Your task to perform on an android device: open device folders in google photos Image 0: 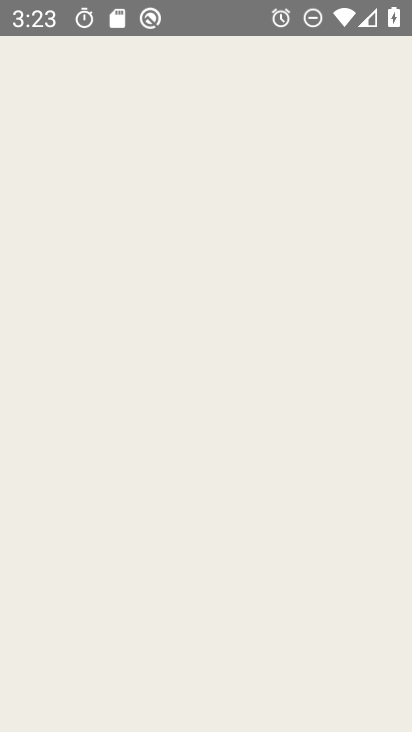
Step 0: click (208, 611)
Your task to perform on an android device: open device folders in google photos Image 1: 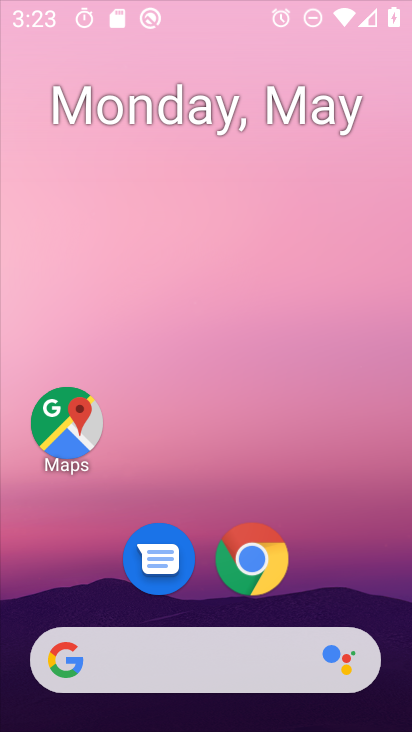
Step 1: drag from (199, 601) to (246, 71)
Your task to perform on an android device: open device folders in google photos Image 2: 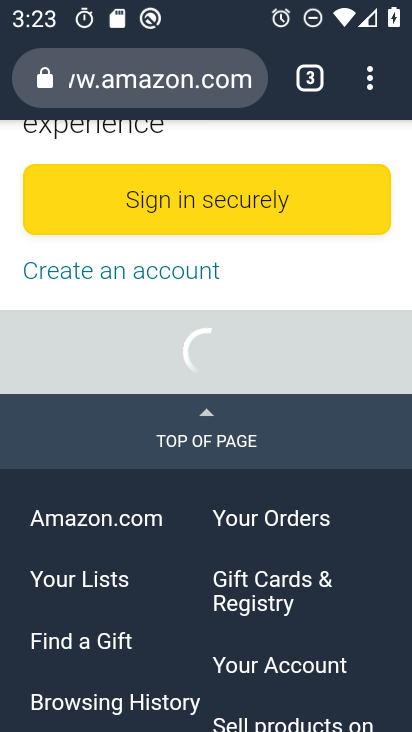
Step 2: drag from (209, 620) to (250, 197)
Your task to perform on an android device: open device folders in google photos Image 3: 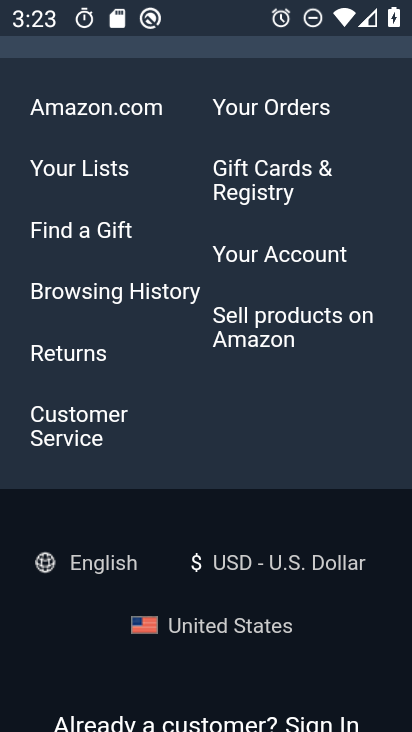
Step 3: drag from (198, 127) to (217, 592)
Your task to perform on an android device: open device folders in google photos Image 4: 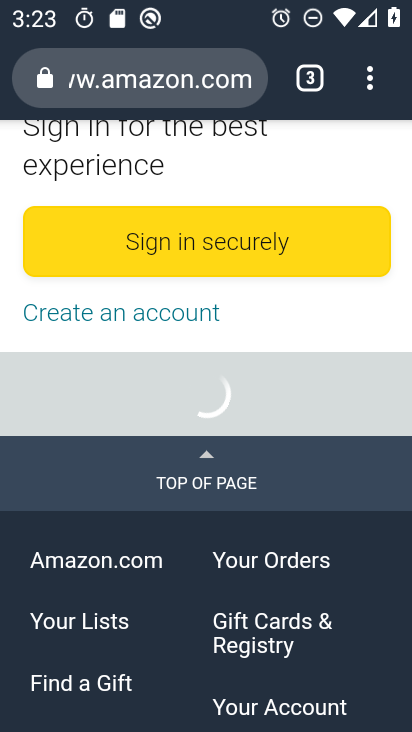
Step 4: drag from (214, 192) to (224, 674)
Your task to perform on an android device: open device folders in google photos Image 5: 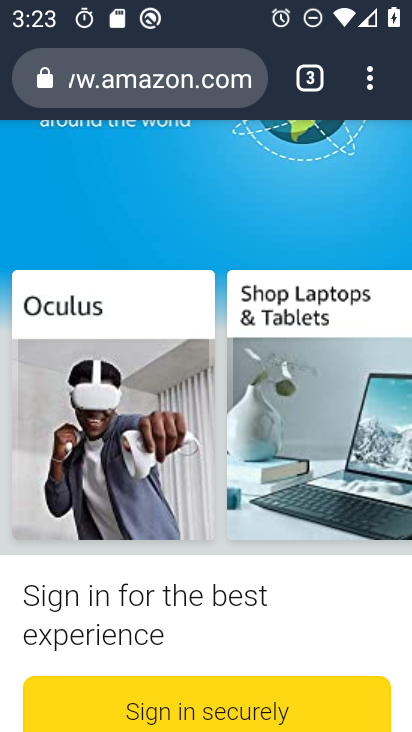
Step 5: drag from (221, 258) to (262, 722)
Your task to perform on an android device: open device folders in google photos Image 6: 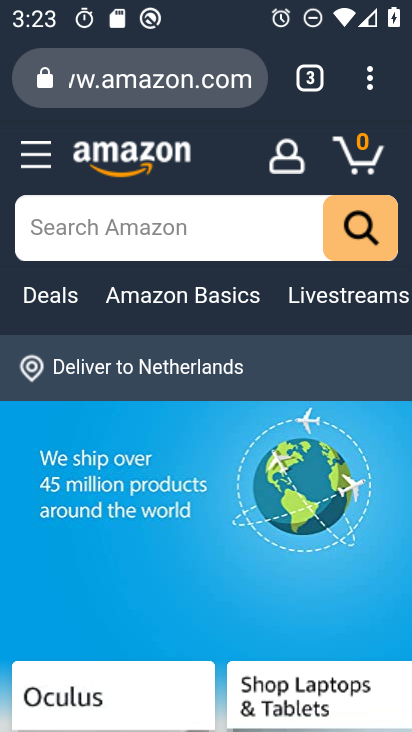
Step 6: drag from (212, 336) to (209, 675)
Your task to perform on an android device: open device folders in google photos Image 7: 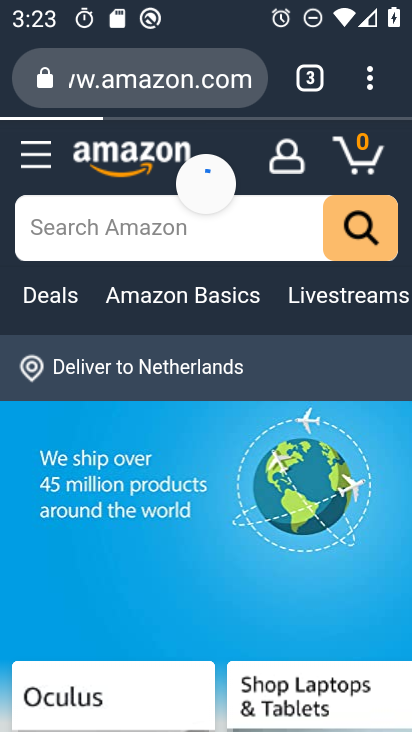
Step 7: drag from (209, 602) to (240, 240)
Your task to perform on an android device: open device folders in google photos Image 8: 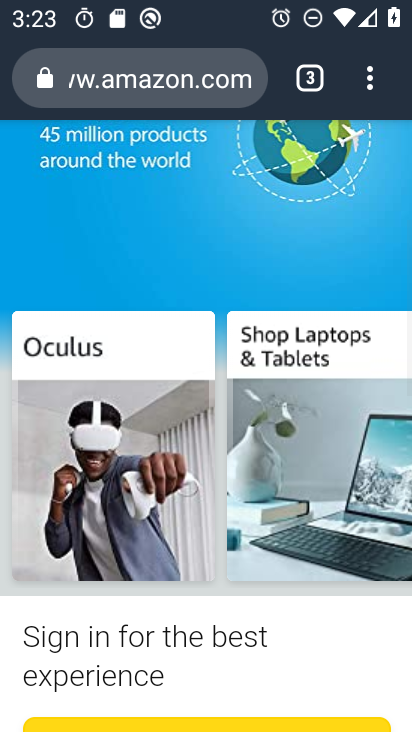
Step 8: drag from (231, 222) to (227, 671)
Your task to perform on an android device: open device folders in google photos Image 9: 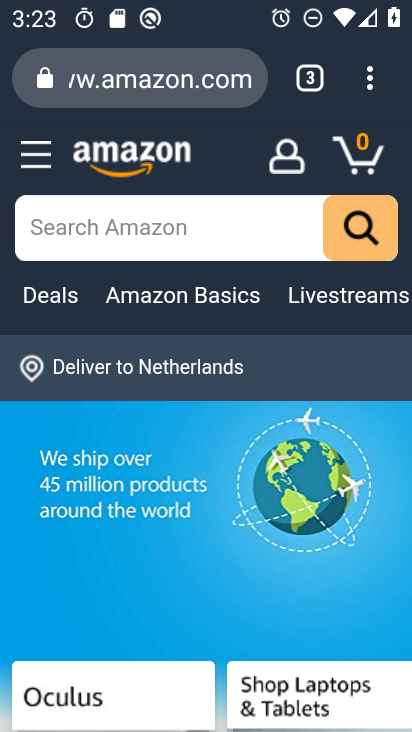
Step 9: press home button
Your task to perform on an android device: open device folders in google photos Image 10: 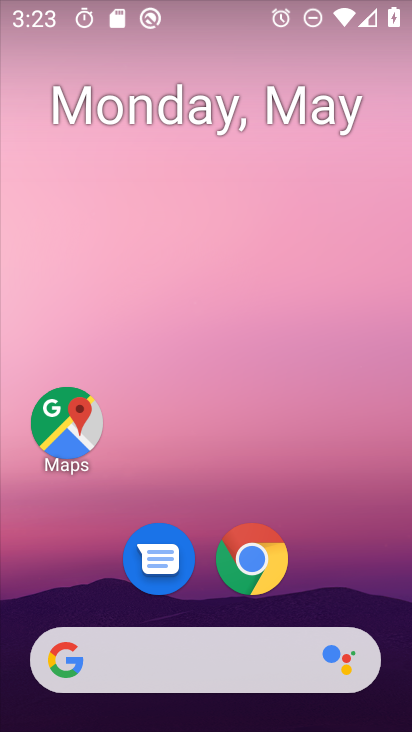
Step 10: drag from (215, 596) to (262, 249)
Your task to perform on an android device: open device folders in google photos Image 11: 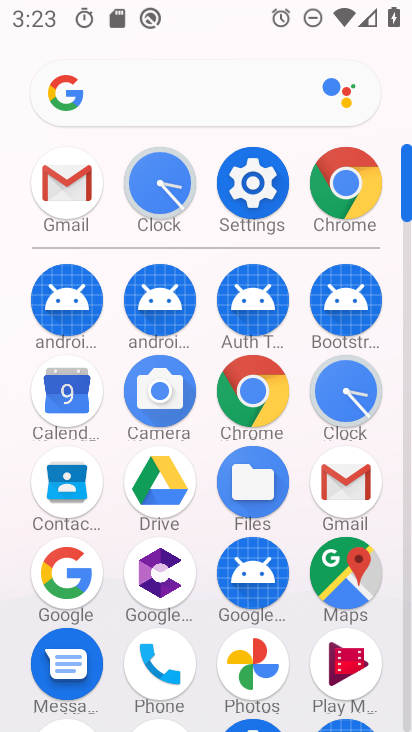
Step 11: click (240, 653)
Your task to perform on an android device: open device folders in google photos Image 12: 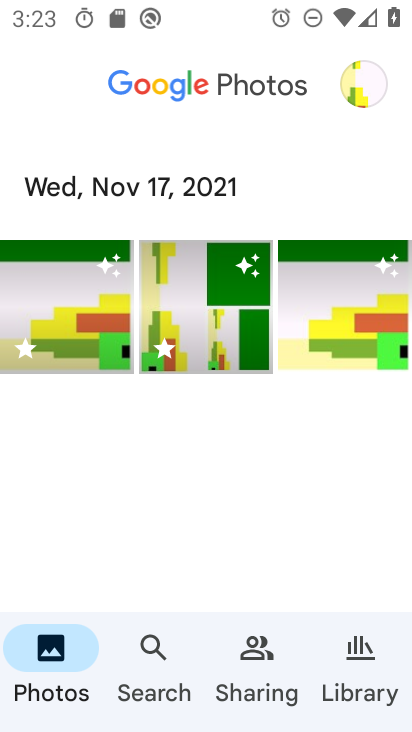
Step 12: click (367, 678)
Your task to perform on an android device: open device folders in google photos Image 13: 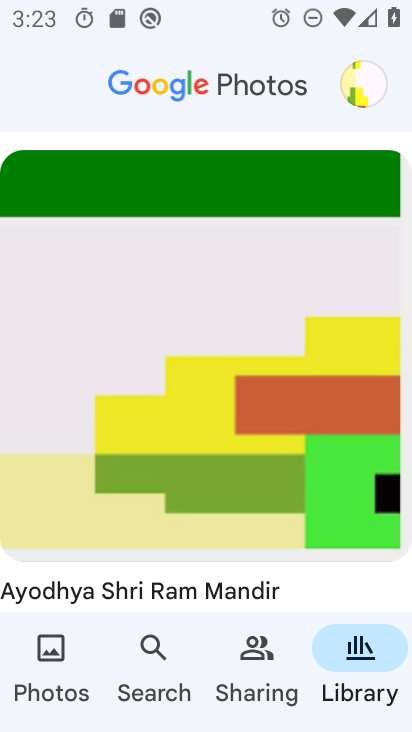
Step 13: task complete